Your task to perform on an android device: find which apps use the phone's location Image 0: 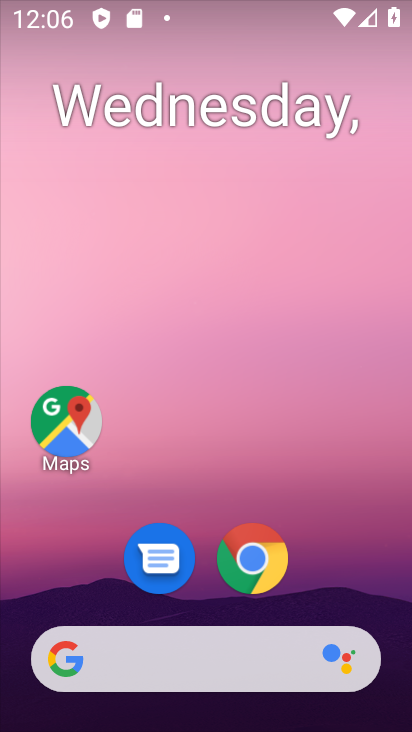
Step 0: press home button
Your task to perform on an android device: find which apps use the phone's location Image 1: 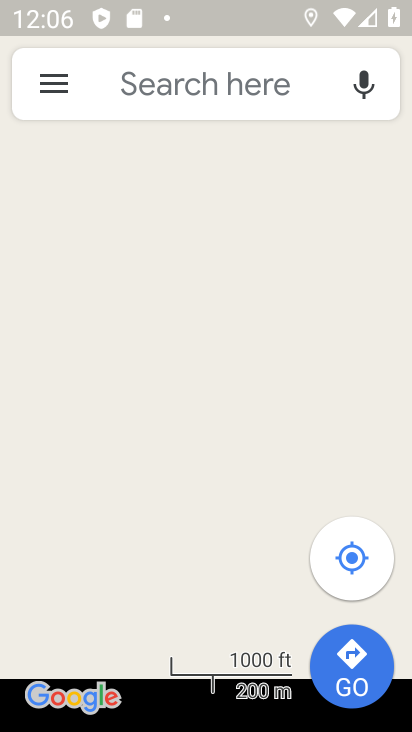
Step 1: drag from (258, 638) to (322, 226)
Your task to perform on an android device: find which apps use the phone's location Image 2: 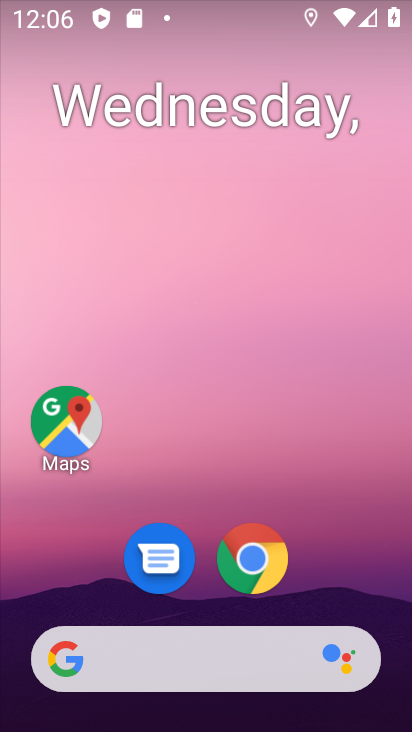
Step 2: drag from (244, 604) to (306, 194)
Your task to perform on an android device: find which apps use the phone's location Image 3: 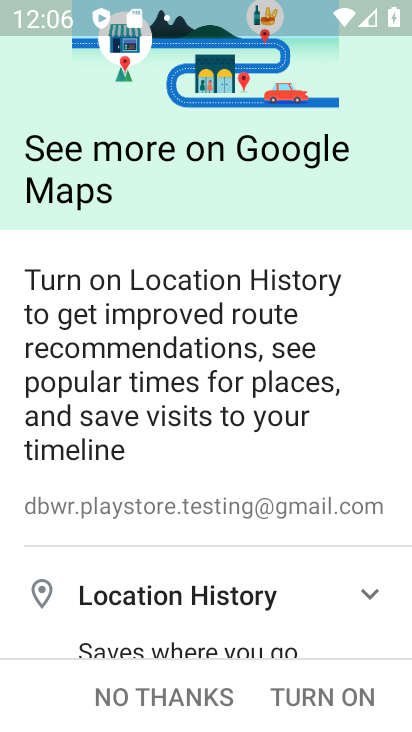
Step 3: click (322, 708)
Your task to perform on an android device: find which apps use the phone's location Image 4: 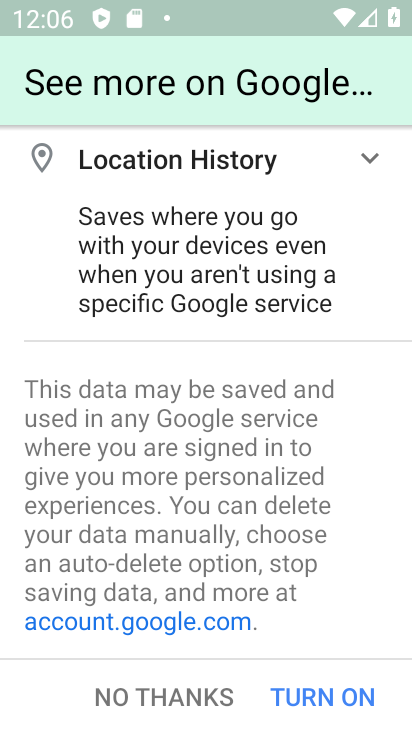
Step 4: click (329, 703)
Your task to perform on an android device: find which apps use the phone's location Image 5: 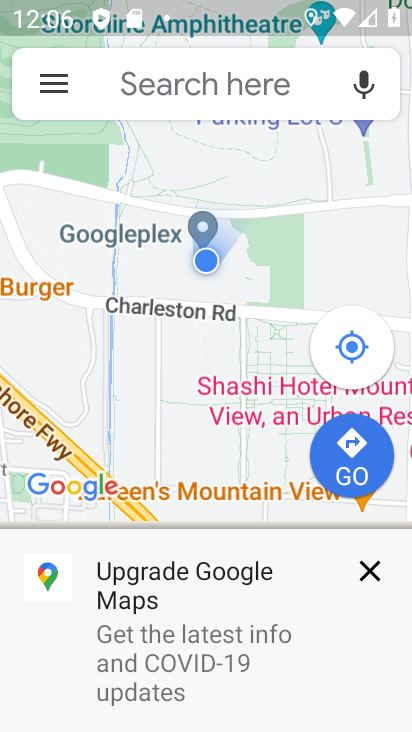
Step 5: click (372, 566)
Your task to perform on an android device: find which apps use the phone's location Image 6: 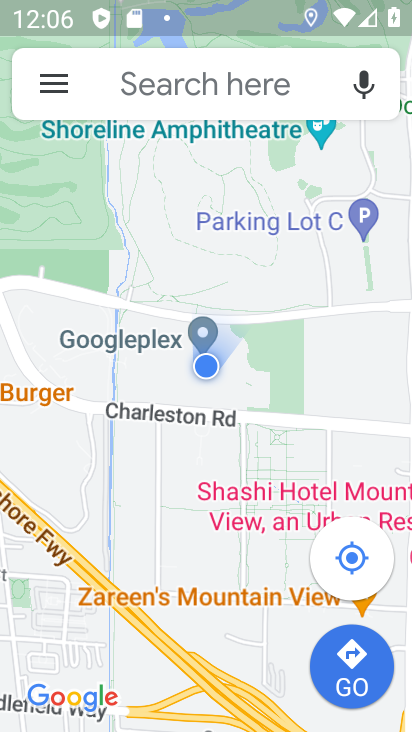
Step 6: press home button
Your task to perform on an android device: find which apps use the phone's location Image 7: 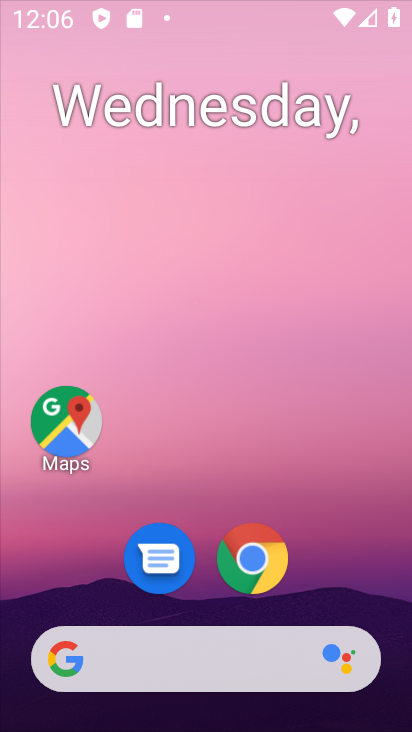
Step 7: drag from (235, 575) to (299, 194)
Your task to perform on an android device: find which apps use the phone's location Image 8: 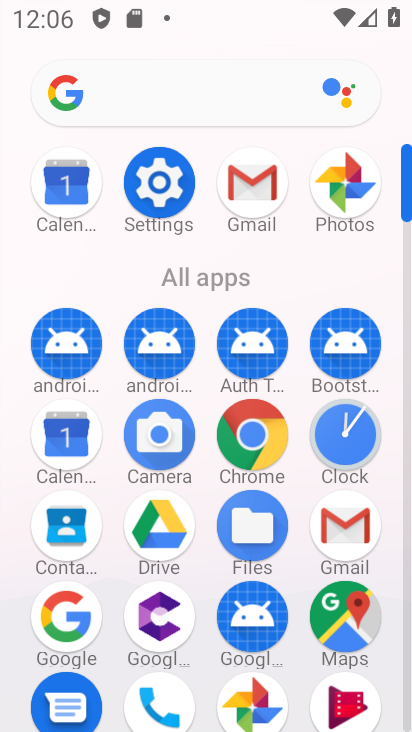
Step 8: click (155, 194)
Your task to perform on an android device: find which apps use the phone's location Image 9: 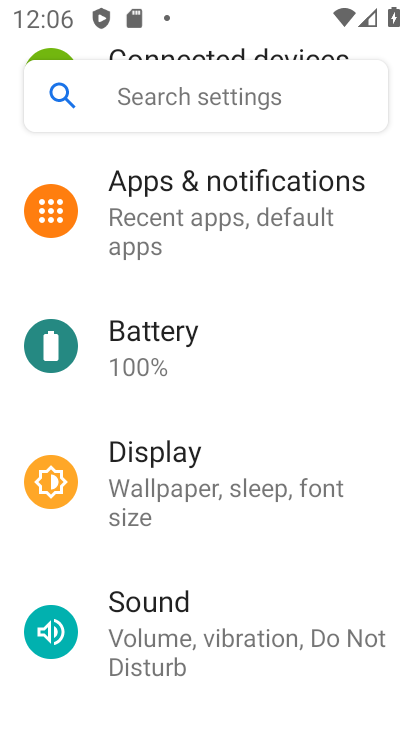
Step 9: drag from (152, 602) to (261, 223)
Your task to perform on an android device: find which apps use the phone's location Image 10: 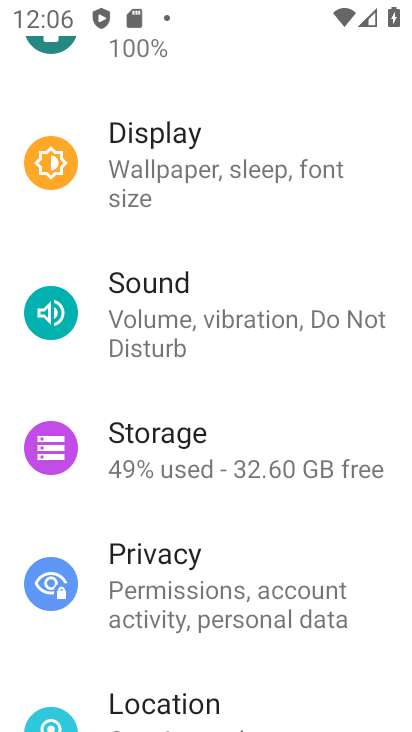
Step 10: click (166, 691)
Your task to perform on an android device: find which apps use the phone's location Image 11: 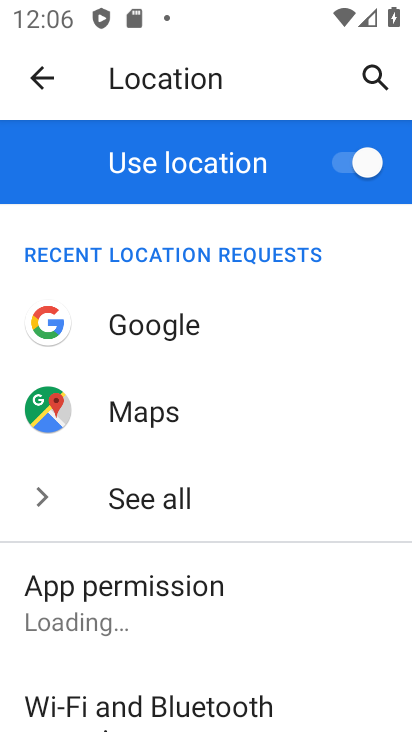
Step 11: drag from (180, 644) to (246, 323)
Your task to perform on an android device: find which apps use the phone's location Image 12: 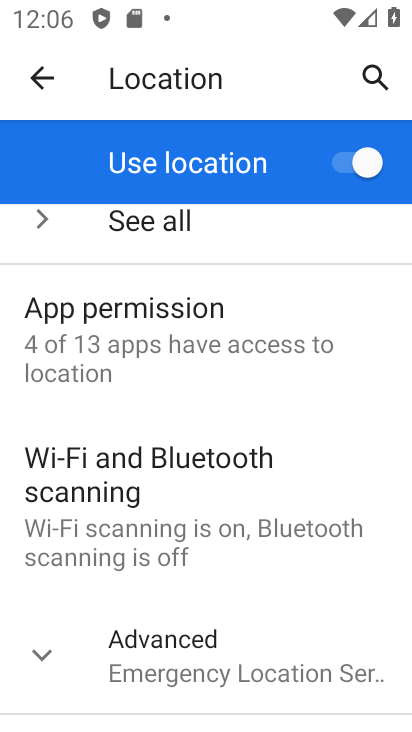
Step 12: click (225, 350)
Your task to perform on an android device: find which apps use the phone's location Image 13: 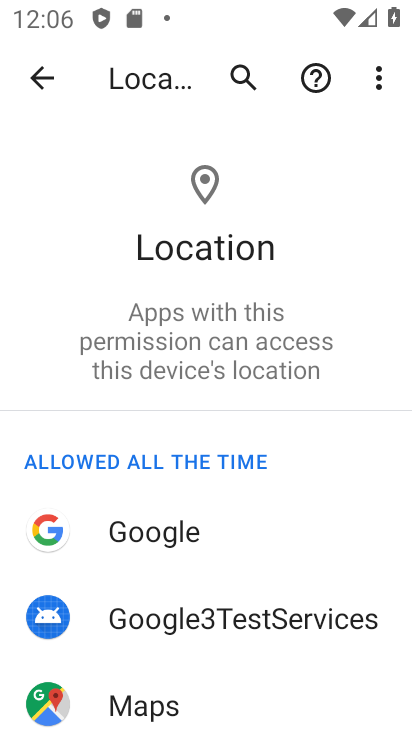
Step 13: task complete